Your task to perform on an android device: Open the Play Movies app and select the watchlist tab. Image 0: 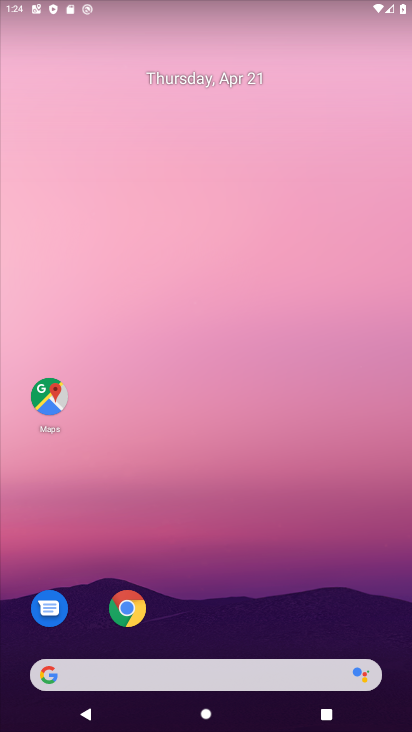
Step 0: drag from (311, 420) to (254, 102)
Your task to perform on an android device: Open the Play Movies app and select the watchlist tab. Image 1: 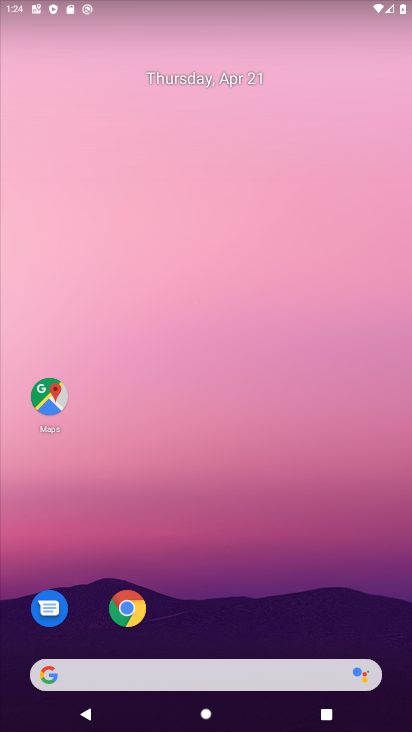
Step 1: drag from (269, 591) to (275, 82)
Your task to perform on an android device: Open the Play Movies app and select the watchlist tab. Image 2: 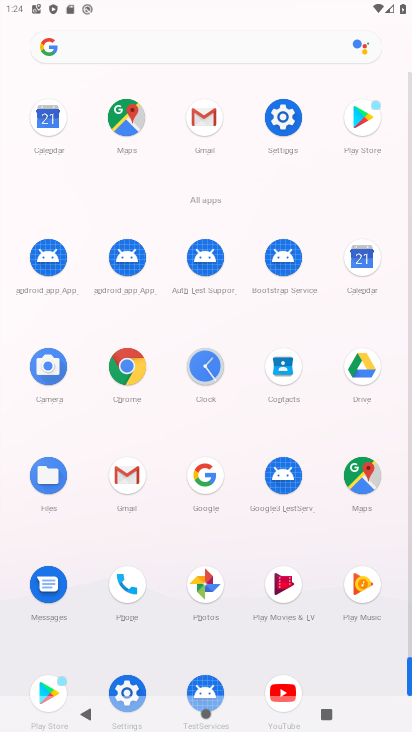
Step 2: drag from (397, 508) to (384, 295)
Your task to perform on an android device: Open the Play Movies app and select the watchlist tab. Image 3: 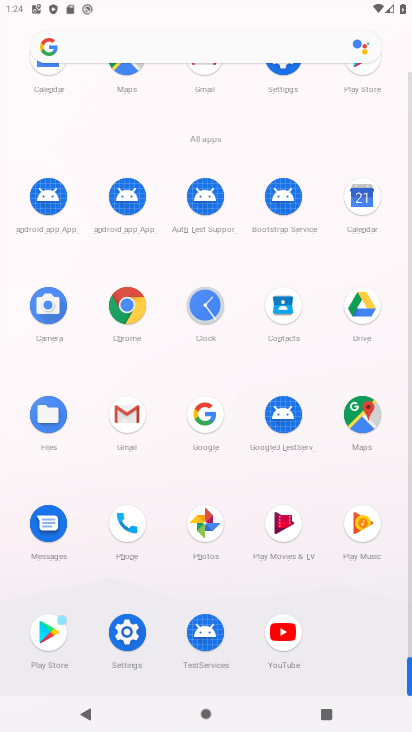
Step 3: click (280, 528)
Your task to perform on an android device: Open the Play Movies app and select the watchlist tab. Image 4: 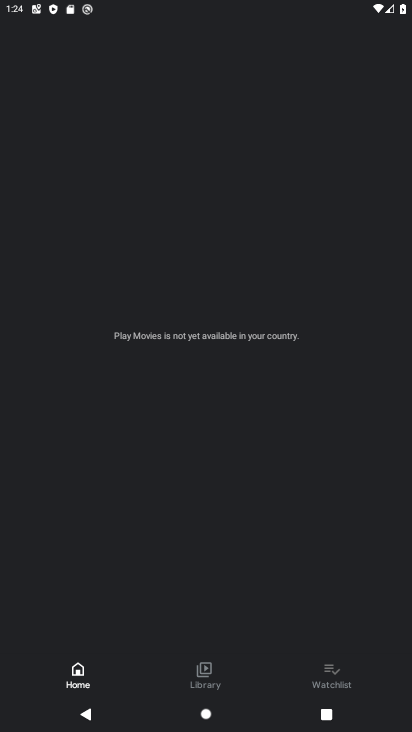
Step 4: click (340, 670)
Your task to perform on an android device: Open the Play Movies app and select the watchlist tab. Image 5: 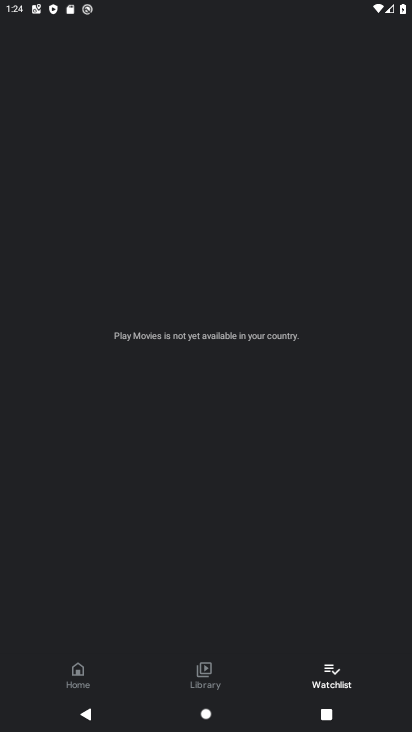
Step 5: task complete